Your task to perform on an android device: Open location settings Image 0: 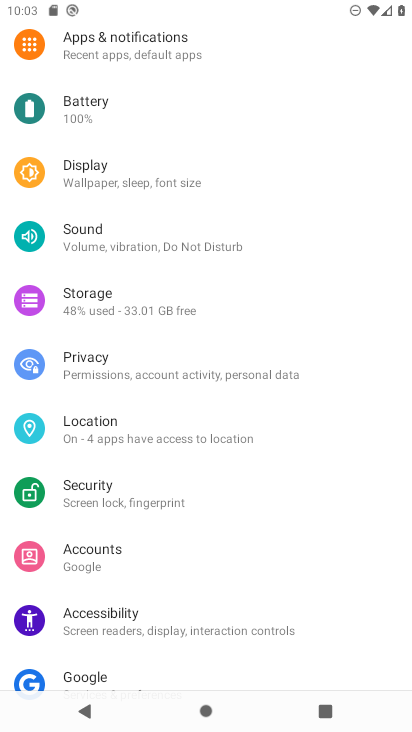
Step 0: press home button
Your task to perform on an android device: Open location settings Image 1: 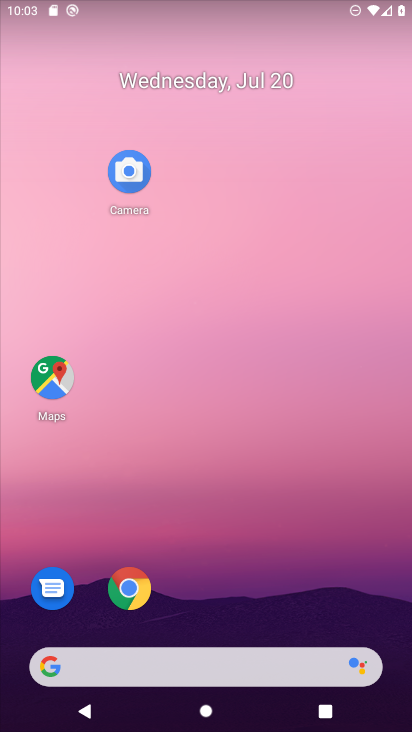
Step 1: drag from (198, 628) to (222, 258)
Your task to perform on an android device: Open location settings Image 2: 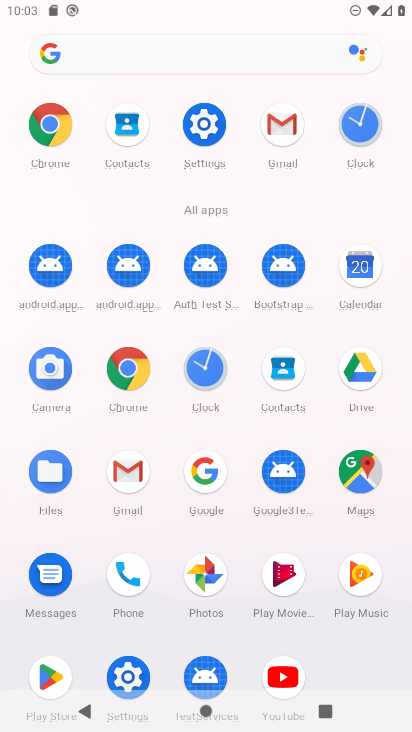
Step 2: click (202, 138)
Your task to perform on an android device: Open location settings Image 3: 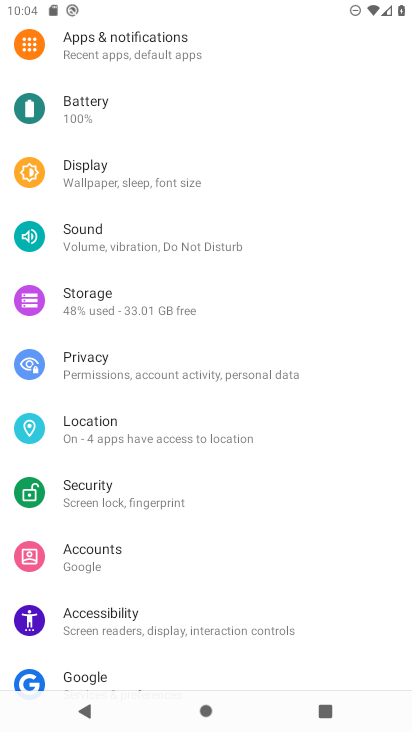
Step 3: click (89, 434)
Your task to perform on an android device: Open location settings Image 4: 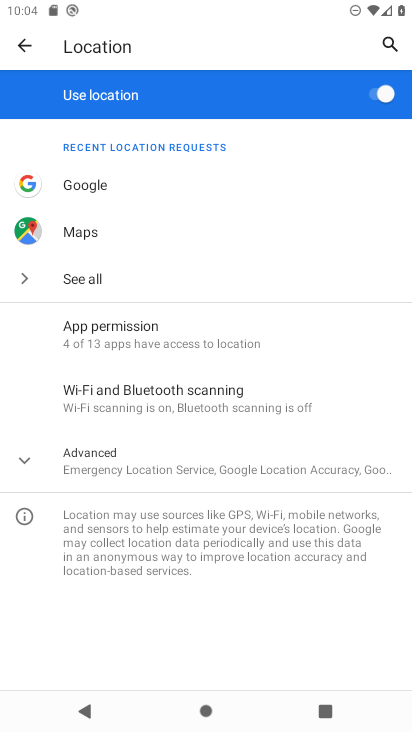
Step 4: task complete